Your task to perform on an android device: Open eBay Image 0: 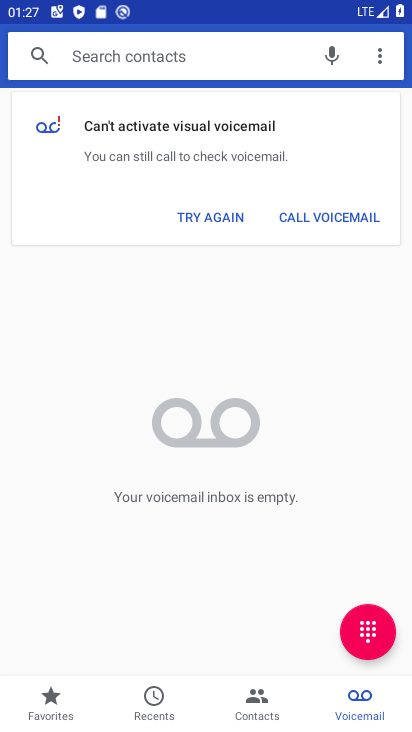
Step 0: press home button
Your task to perform on an android device: Open eBay Image 1: 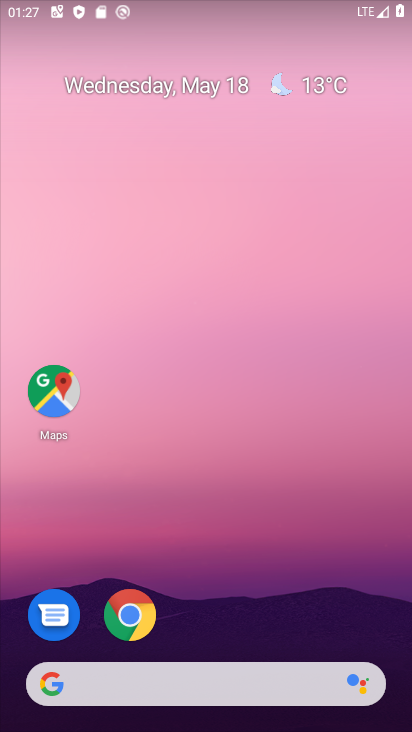
Step 1: click (136, 623)
Your task to perform on an android device: Open eBay Image 2: 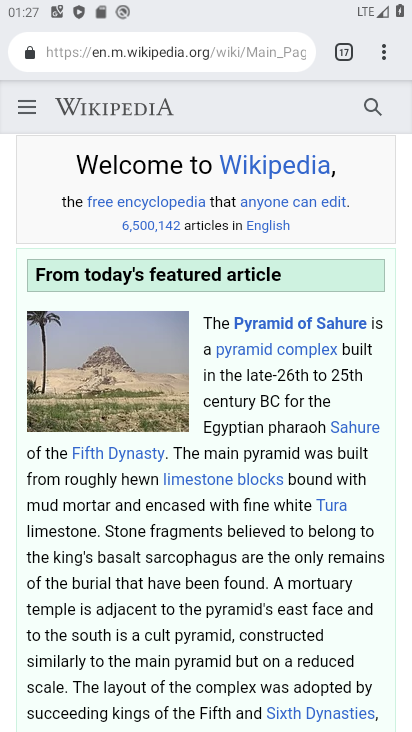
Step 2: drag from (388, 49) to (282, 95)
Your task to perform on an android device: Open eBay Image 3: 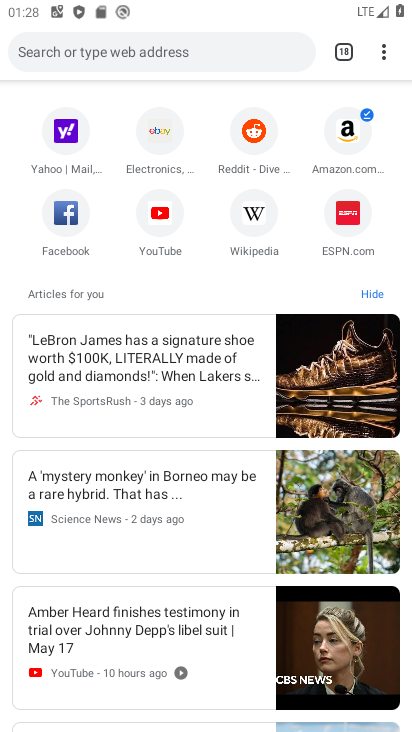
Step 3: click (163, 139)
Your task to perform on an android device: Open eBay Image 4: 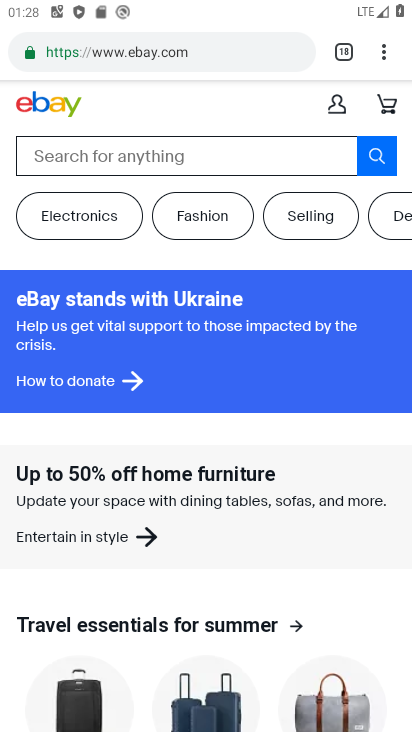
Step 4: task complete